Your task to perform on an android device: open a bookmark in the chrome app Image 0: 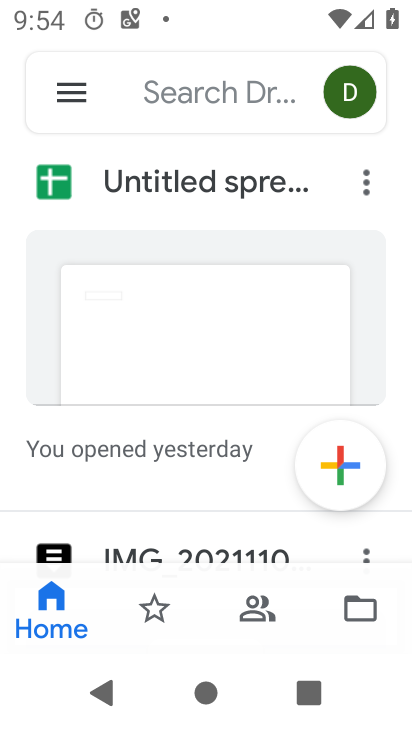
Step 0: press home button
Your task to perform on an android device: open a bookmark in the chrome app Image 1: 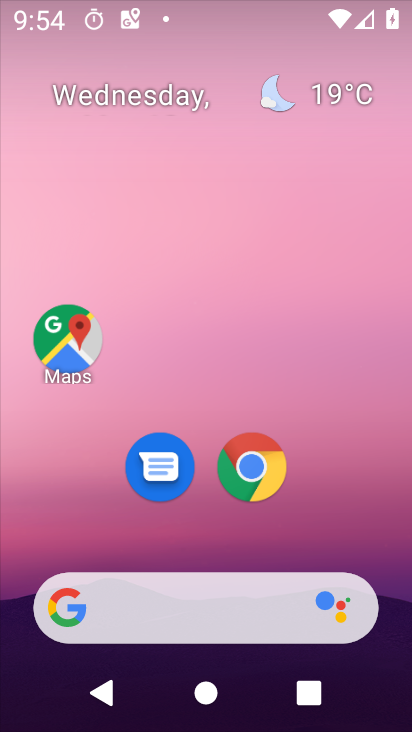
Step 1: click (257, 451)
Your task to perform on an android device: open a bookmark in the chrome app Image 2: 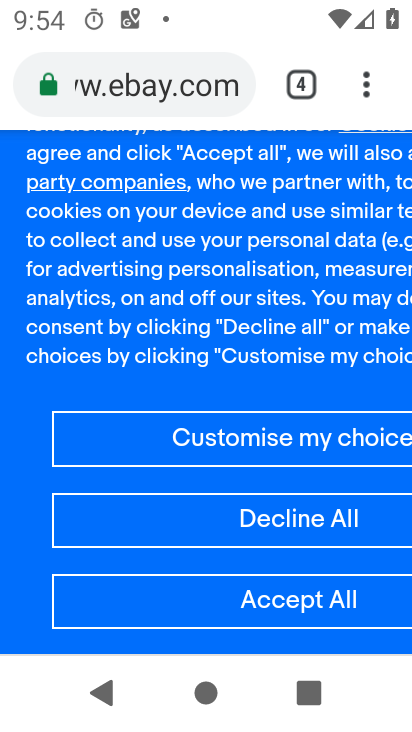
Step 2: click (365, 79)
Your task to perform on an android device: open a bookmark in the chrome app Image 3: 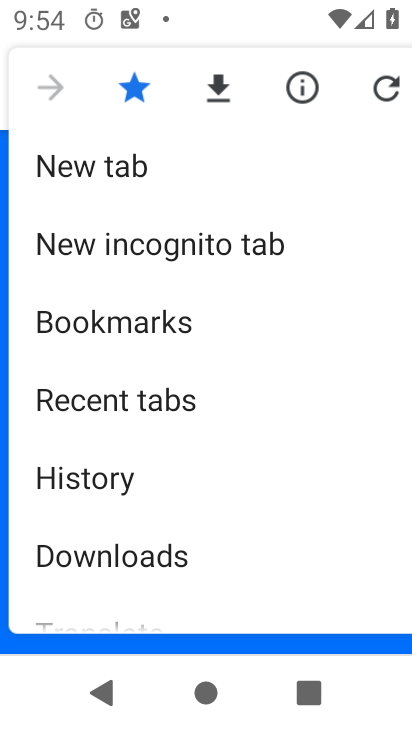
Step 3: click (216, 329)
Your task to perform on an android device: open a bookmark in the chrome app Image 4: 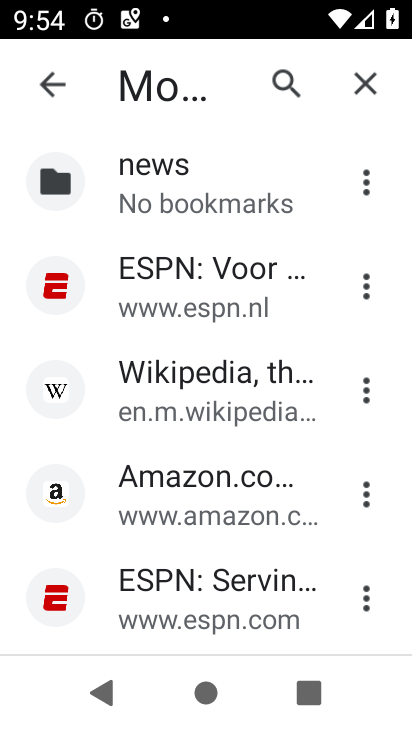
Step 4: task complete